Your task to perform on an android device: Do I have any events tomorrow? Image 0: 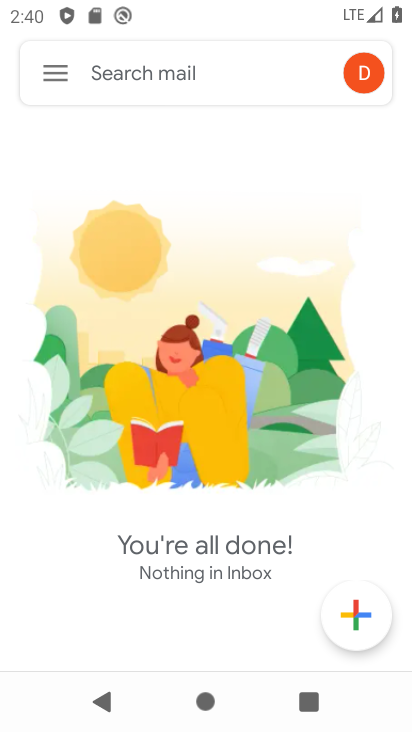
Step 0: press home button
Your task to perform on an android device: Do I have any events tomorrow? Image 1: 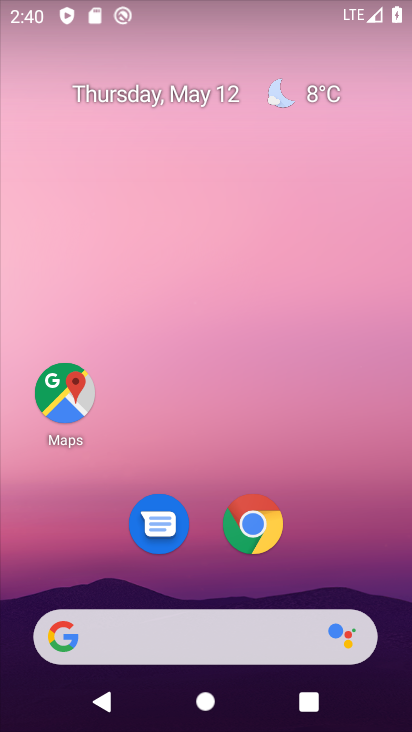
Step 1: drag from (217, 415) to (207, 54)
Your task to perform on an android device: Do I have any events tomorrow? Image 2: 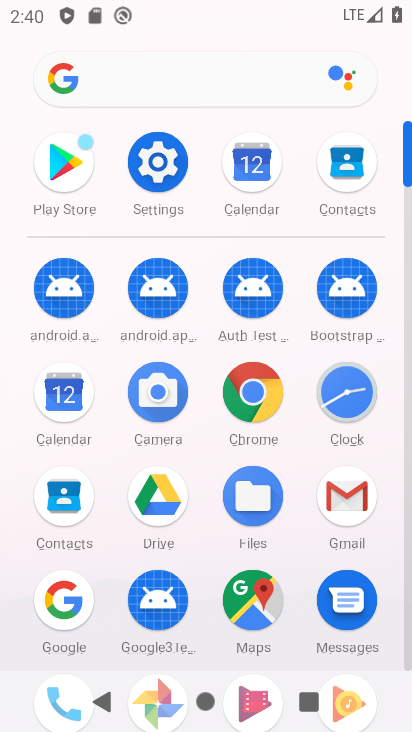
Step 2: drag from (195, 524) to (203, 215)
Your task to perform on an android device: Do I have any events tomorrow? Image 3: 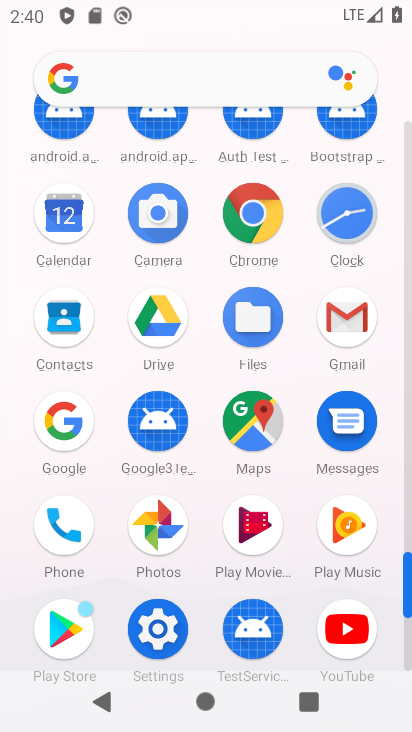
Step 3: click (77, 217)
Your task to perform on an android device: Do I have any events tomorrow? Image 4: 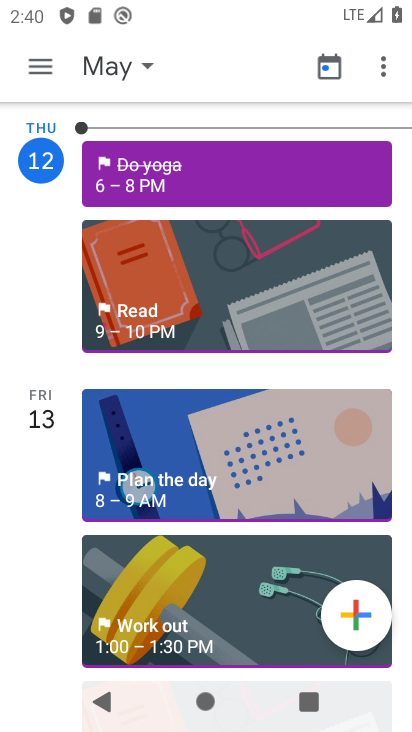
Step 4: task complete